Your task to perform on an android device: turn on sleep mode Image 0: 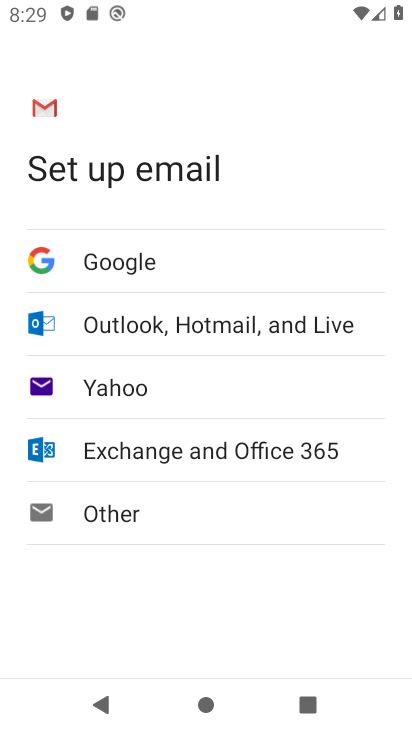
Step 0: press home button
Your task to perform on an android device: turn on sleep mode Image 1: 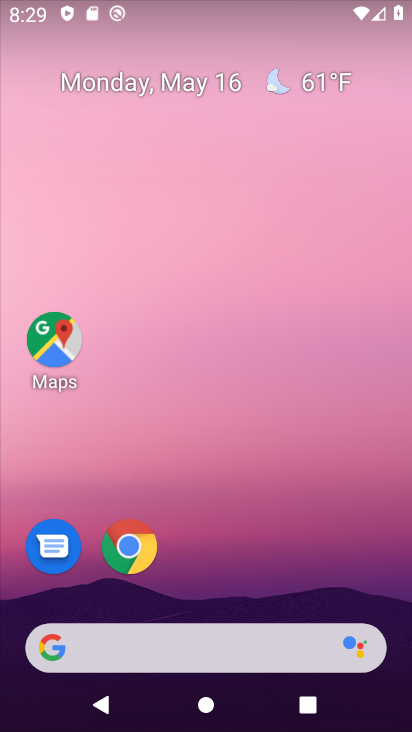
Step 1: drag from (304, 565) to (246, 189)
Your task to perform on an android device: turn on sleep mode Image 2: 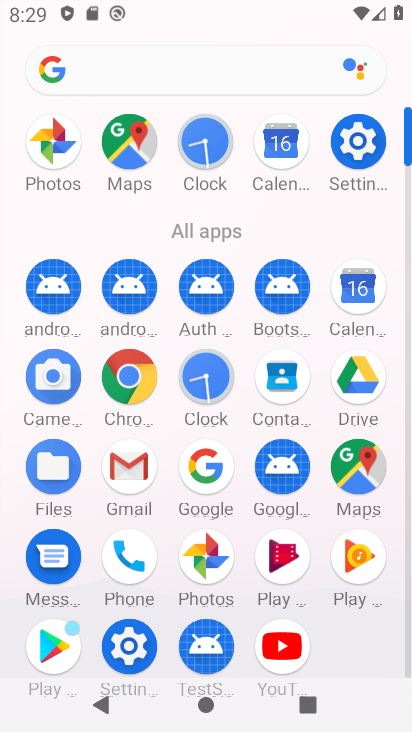
Step 2: drag from (293, 8) to (261, 522)
Your task to perform on an android device: turn on sleep mode Image 3: 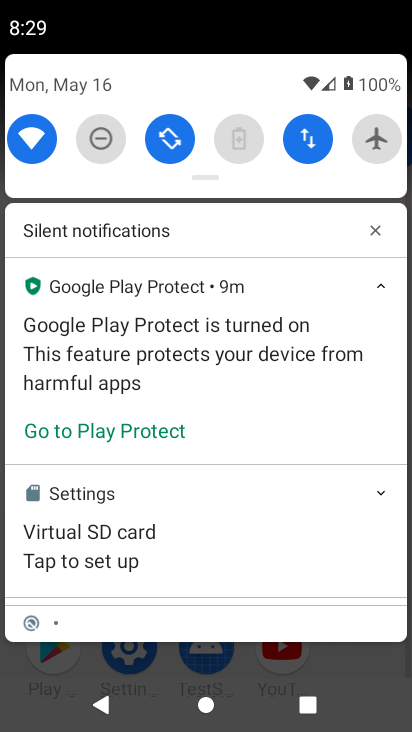
Step 3: drag from (202, 170) to (131, 588)
Your task to perform on an android device: turn on sleep mode Image 4: 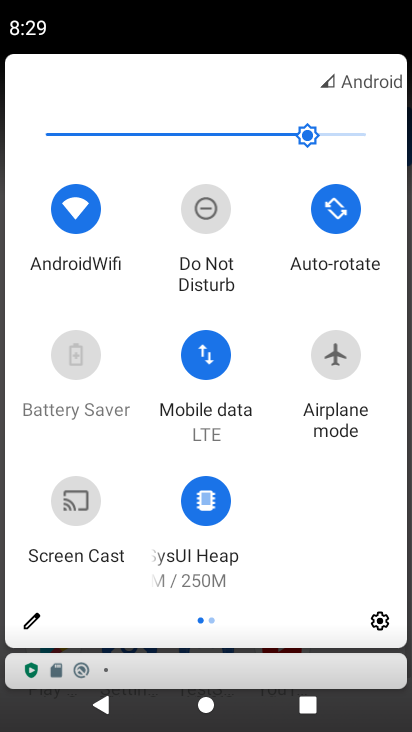
Step 4: click (34, 618)
Your task to perform on an android device: turn on sleep mode Image 5: 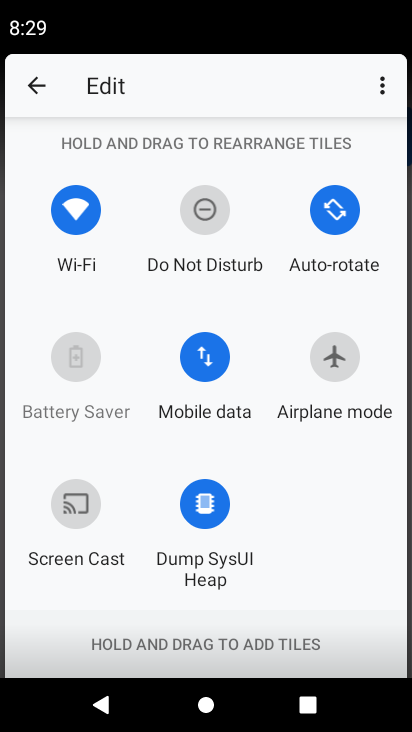
Step 5: task complete